Your task to perform on an android device: turn off picture-in-picture Image 0: 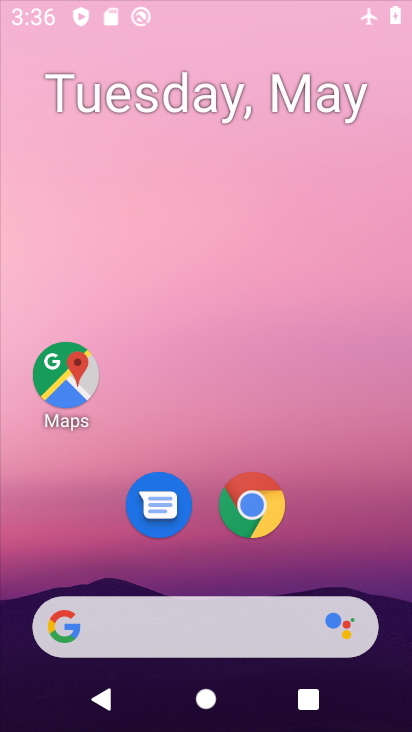
Step 0: click (341, 236)
Your task to perform on an android device: turn off picture-in-picture Image 1: 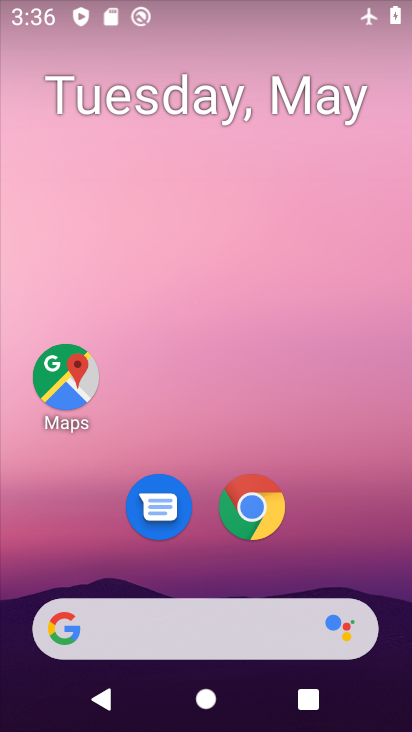
Step 1: drag from (350, 567) to (312, 124)
Your task to perform on an android device: turn off picture-in-picture Image 2: 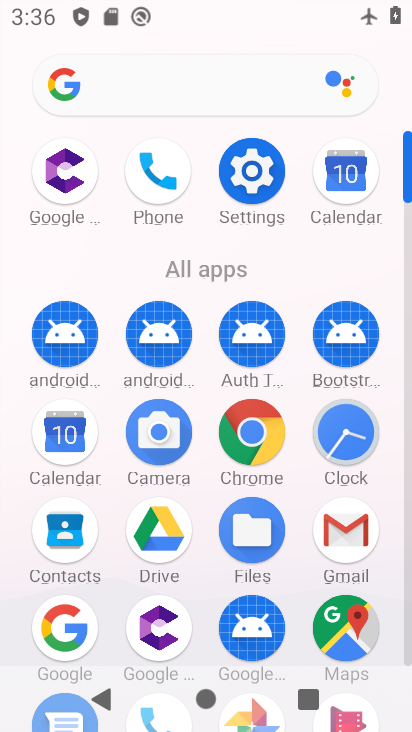
Step 2: drag from (253, 439) to (251, 222)
Your task to perform on an android device: turn off picture-in-picture Image 3: 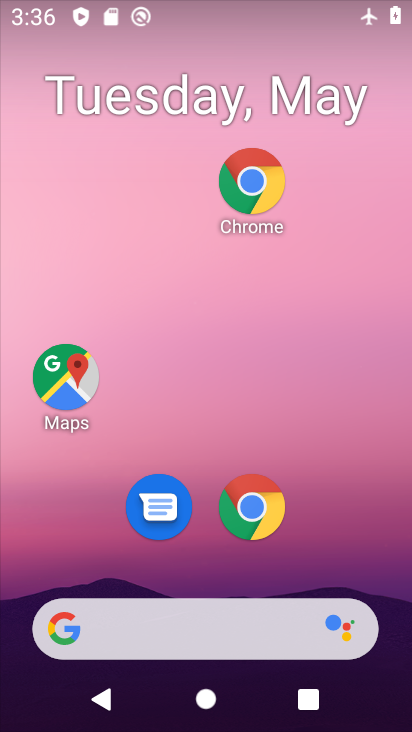
Step 3: click (258, 193)
Your task to perform on an android device: turn off picture-in-picture Image 4: 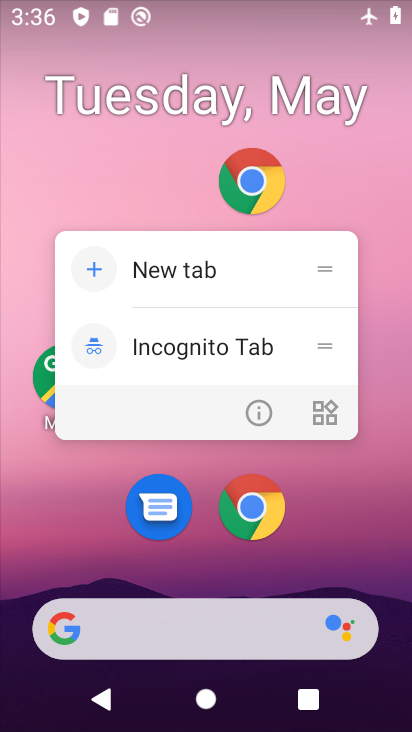
Step 4: click (261, 408)
Your task to perform on an android device: turn off picture-in-picture Image 5: 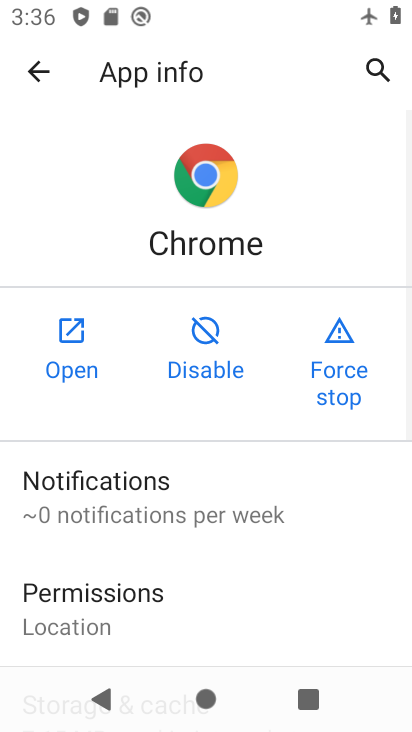
Step 5: drag from (211, 620) to (208, 204)
Your task to perform on an android device: turn off picture-in-picture Image 6: 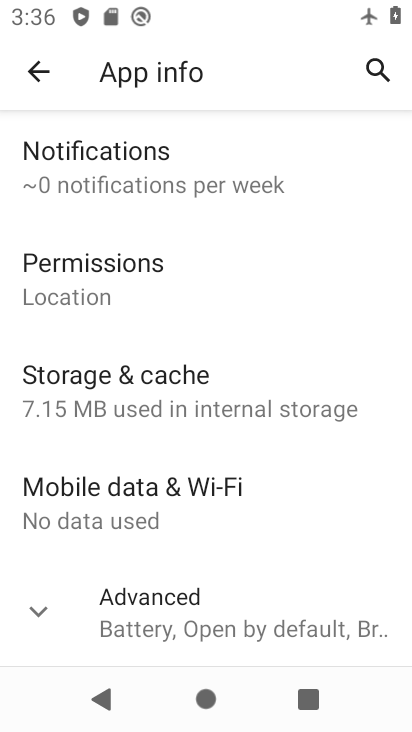
Step 6: drag from (248, 510) to (239, 224)
Your task to perform on an android device: turn off picture-in-picture Image 7: 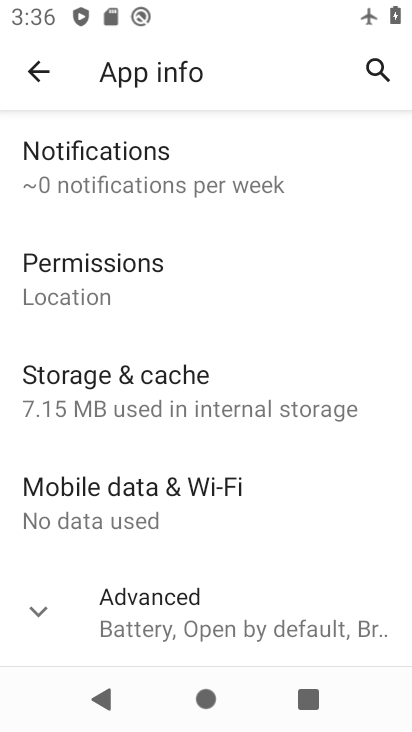
Step 7: click (252, 612)
Your task to perform on an android device: turn off picture-in-picture Image 8: 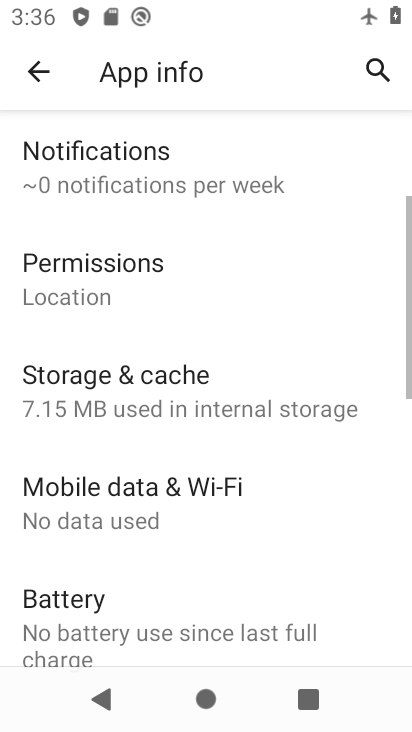
Step 8: drag from (274, 538) to (307, 226)
Your task to perform on an android device: turn off picture-in-picture Image 9: 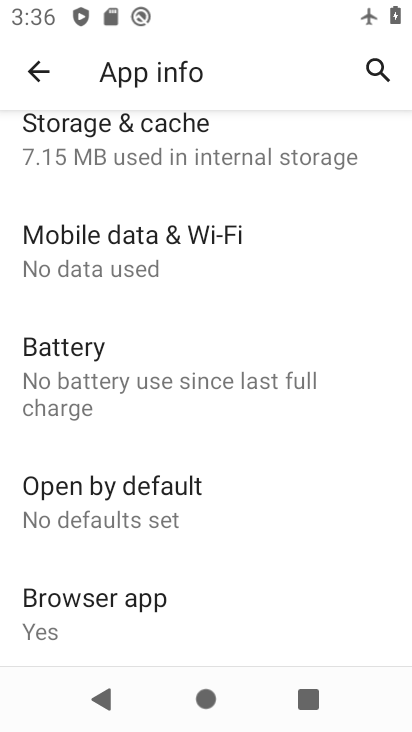
Step 9: drag from (173, 531) to (163, 215)
Your task to perform on an android device: turn off picture-in-picture Image 10: 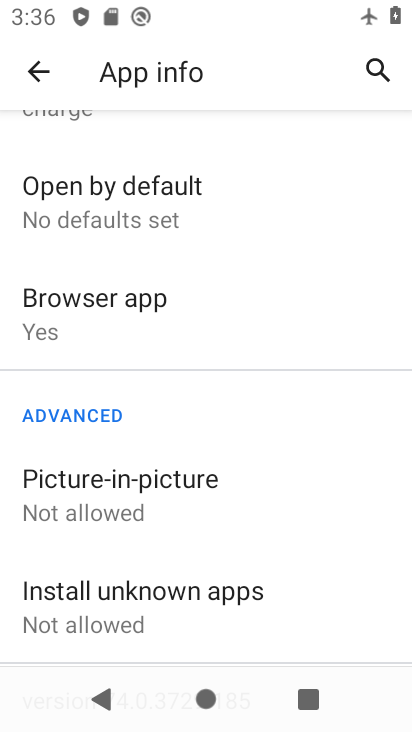
Step 10: click (152, 515)
Your task to perform on an android device: turn off picture-in-picture Image 11: 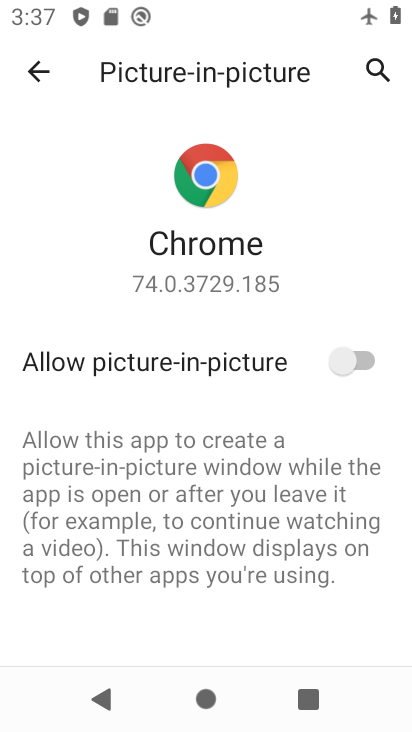
Step 11: task complete